Your task to perform on an android device: turn off location Image 0: 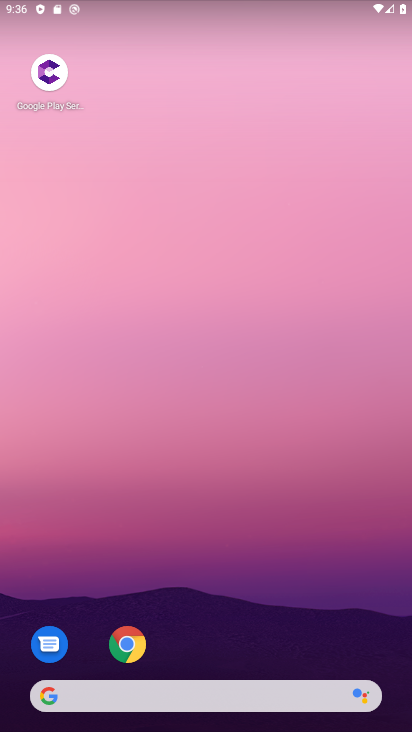
Step 0: drag from (207, 661) to (232, 204)
Your task to perform on an android device: turn off location Image 1: 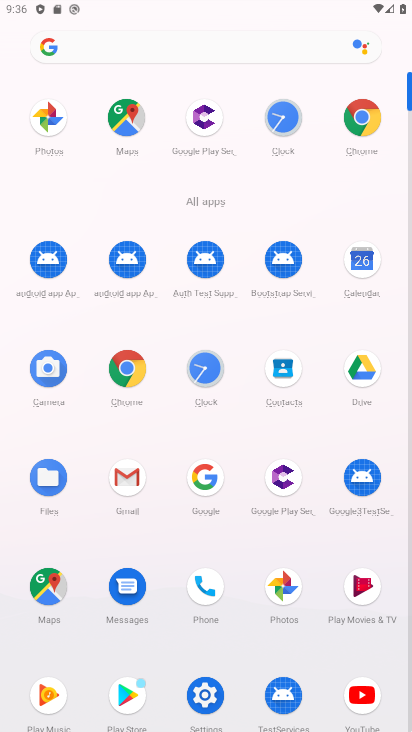
Step 1: click (202, 683)
Your task to perform on an android device: turn off location Image 2: 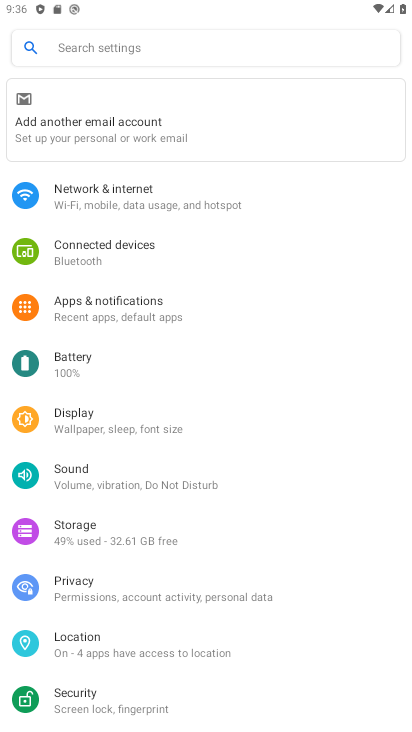
Step 2: drag from (192, 624) to (233, 427)
Your task to perform on an android device: turn off location Image 3: 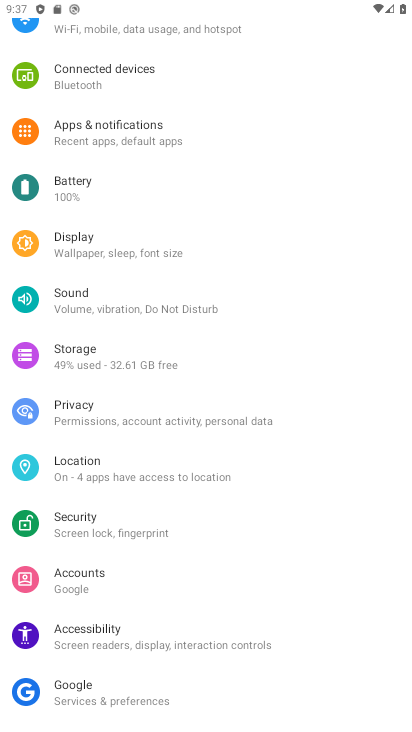
Step 3: click (157, 469)
Your task to perform on an android device: turn off location Image 4: 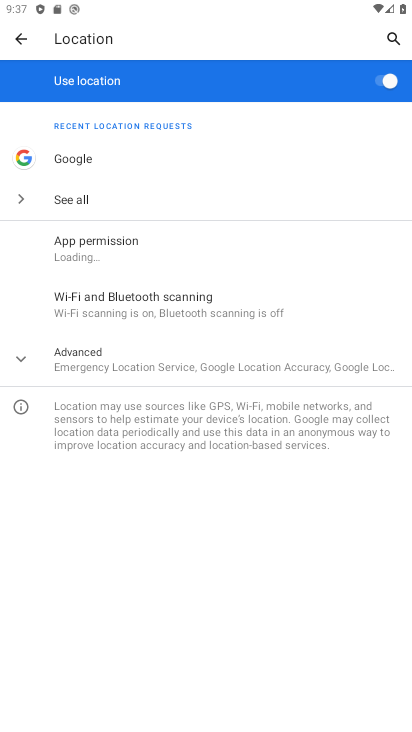
Step 4: click (371, 76)
Your task to perform on an android device: turn off location Image 5: 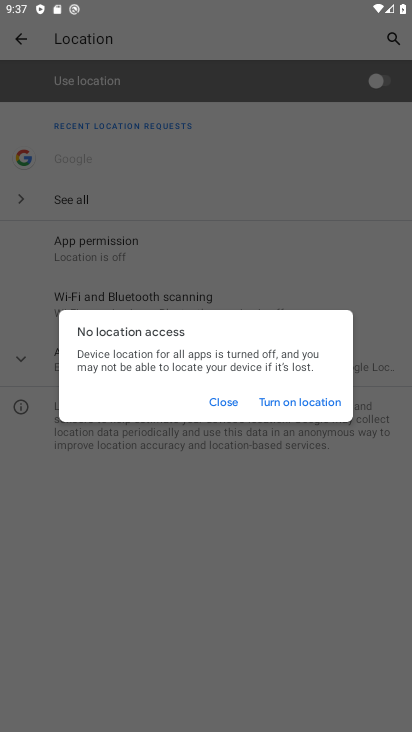
Step 5: task complete